Your task to perform on an android device: Open Chrome and go to settings Image 0: 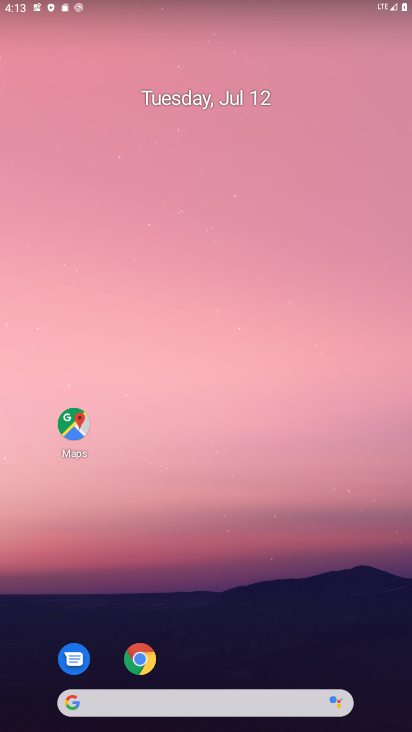
Step 0: click (142, 658)
Your task to perform on an android device: Open Chrome and go to settings Image 1: 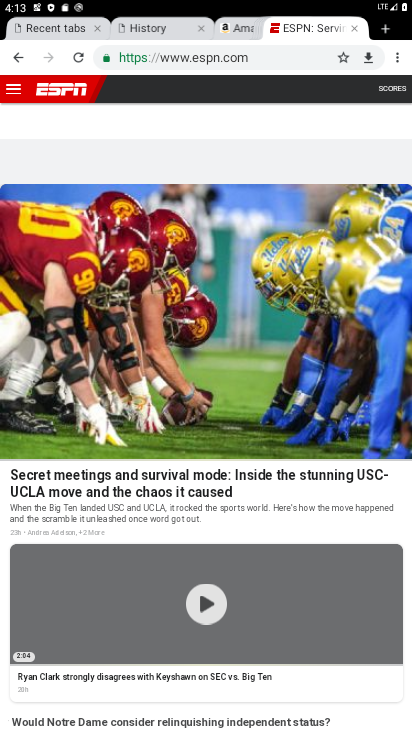
Step 1: click (397, 58)
Your task to perform on an android device: Open Chrome and go to settings Image 2: 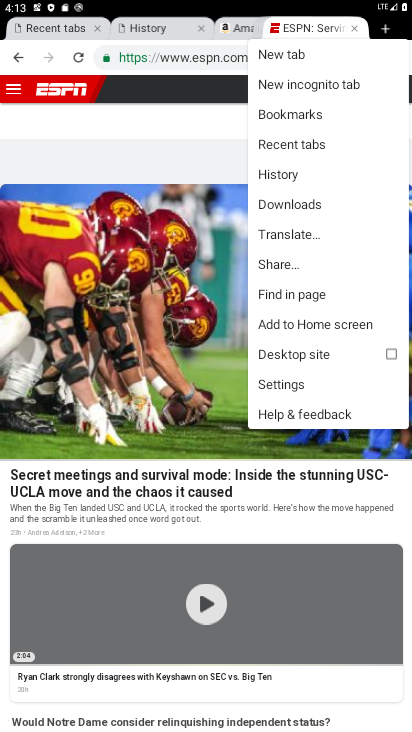
Step 2: click (276, 380)
Your task to perform on an android device: Open Chrome and go to settings Image 3: 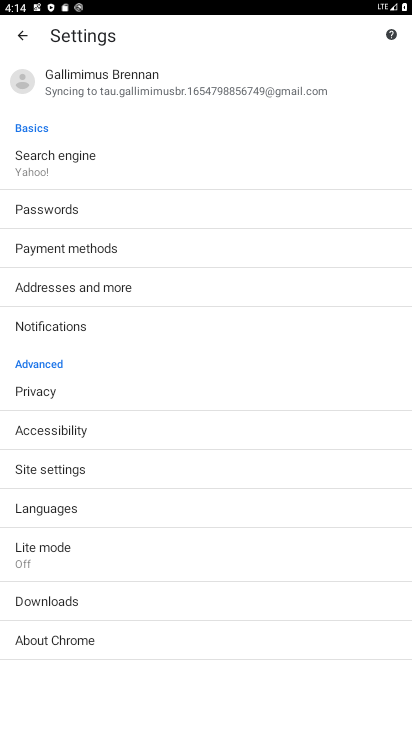
Step 3: task complete